Your task to perform on an android device: uninstall "Google Keep" Image 0: 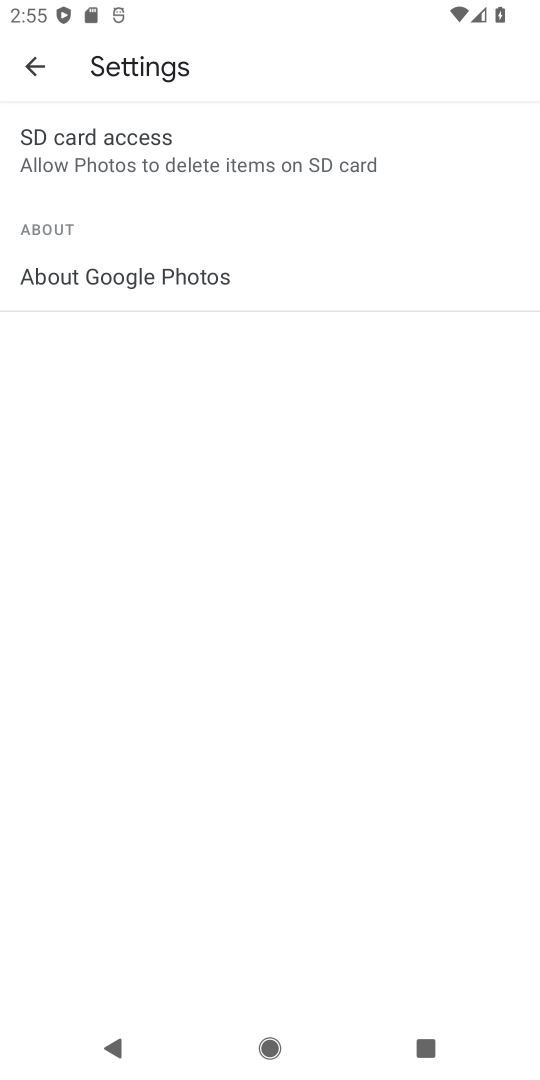
Step 0: press home button
Your task to perform on an android device: uninstall "Google Keep" Image 1: 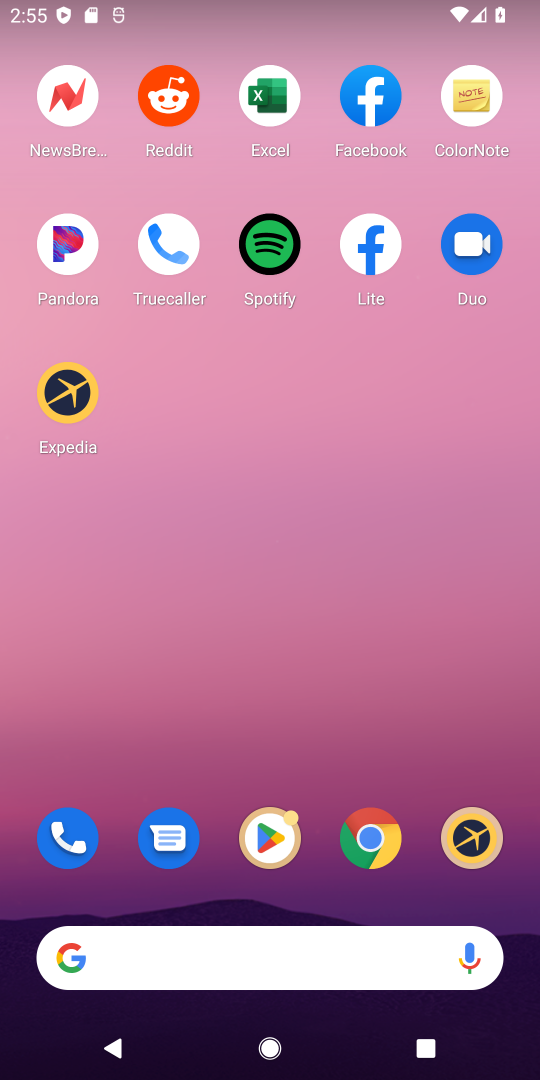
Step 1: drag from (423, 756) to (414, 71)
Your task to perform on an android device: uninstall "Google Keep" Image 2: 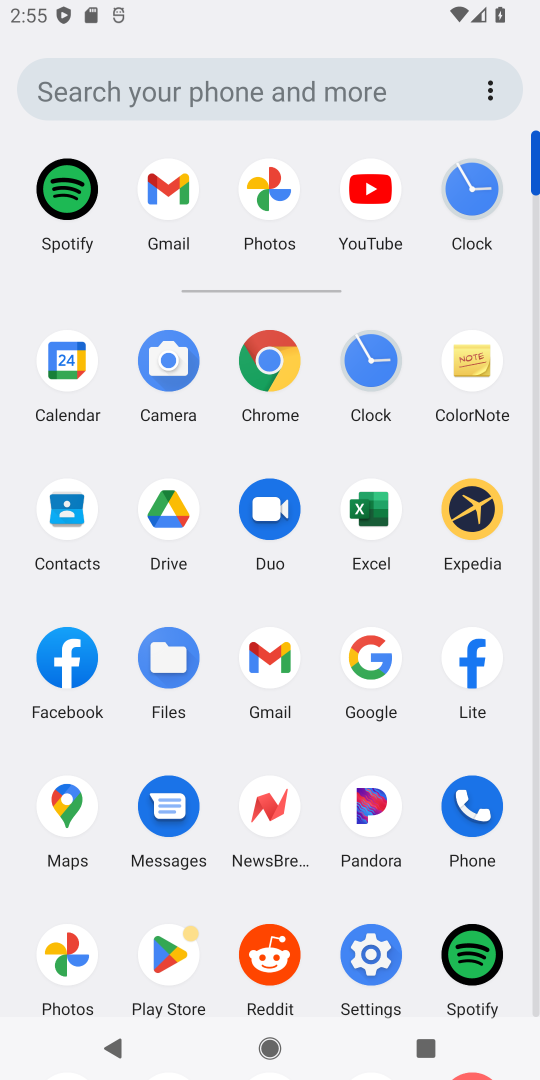
Step 2: click (165, 964)
Your task to perform on an android device: uninstall "Google Keep" Image 3: 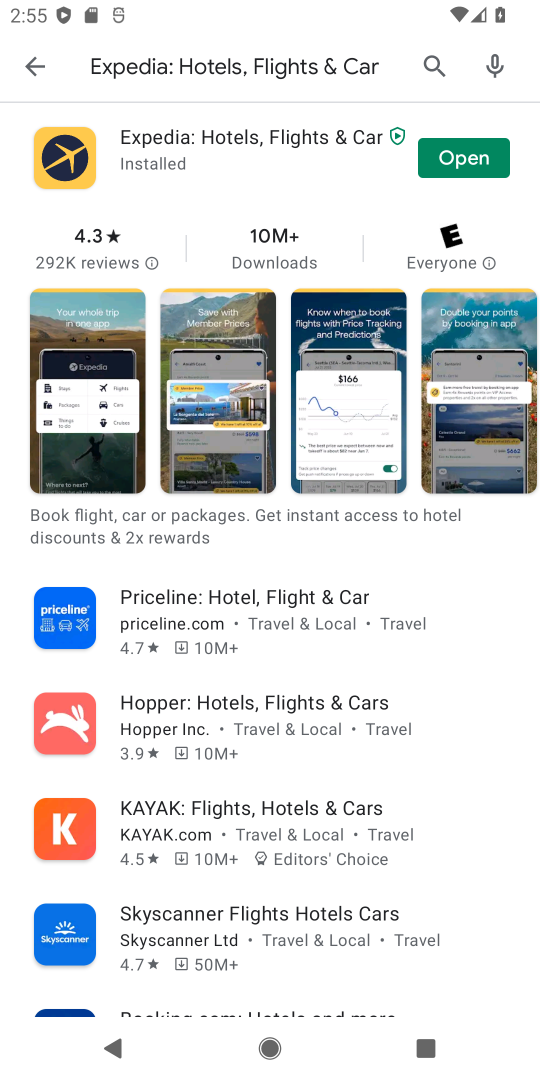
Step 3: press back button
Your task to perform on an android device: uninstall "Google Keep" Image 4: 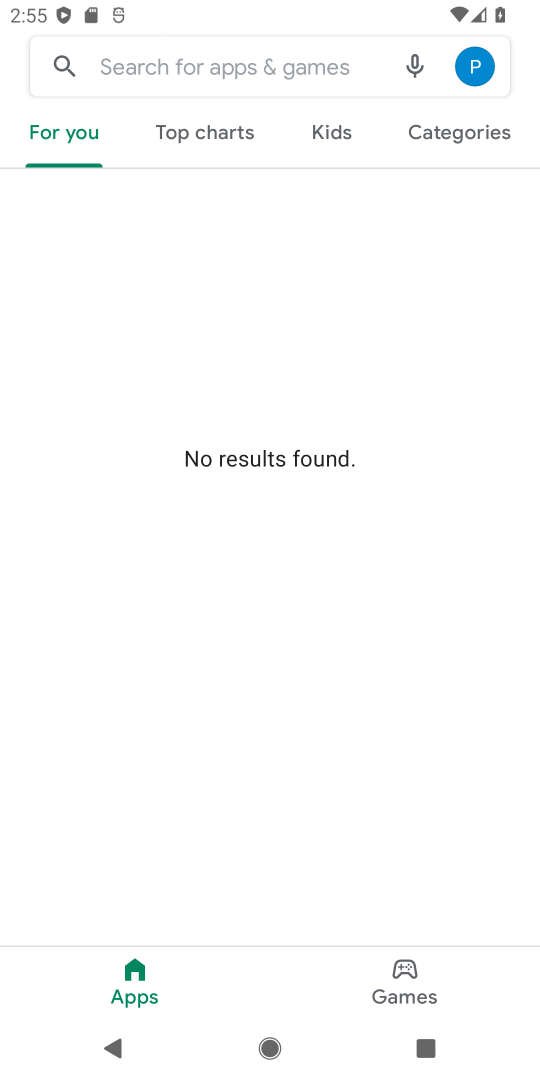
Step 4: click (334, 64)
Your task to perform on an android device: uninstall "Google Keep" Image 5: 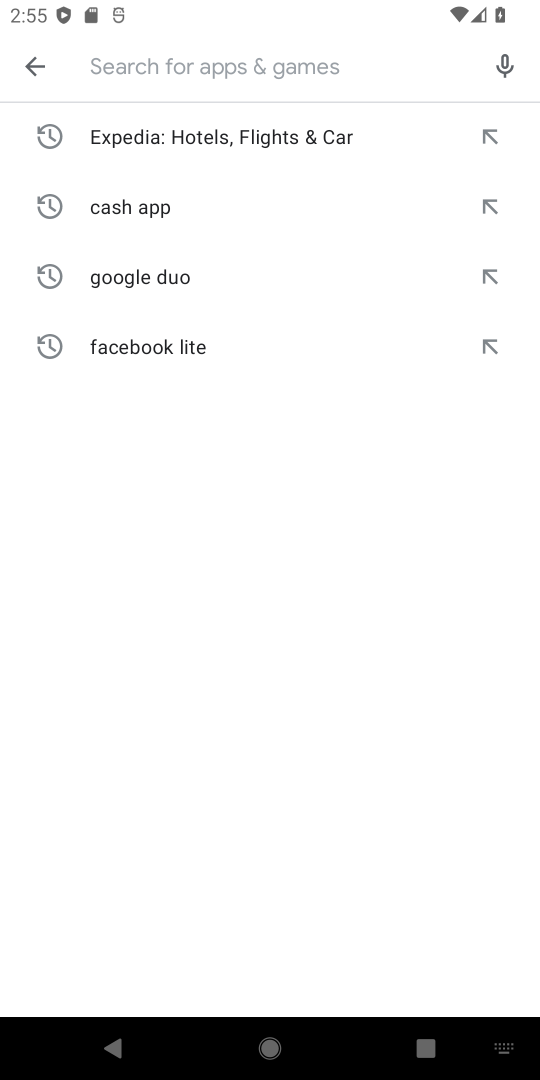
Step 5: press enter
Your task to perform on an android device: uninstall "Google Keep" Image 6: 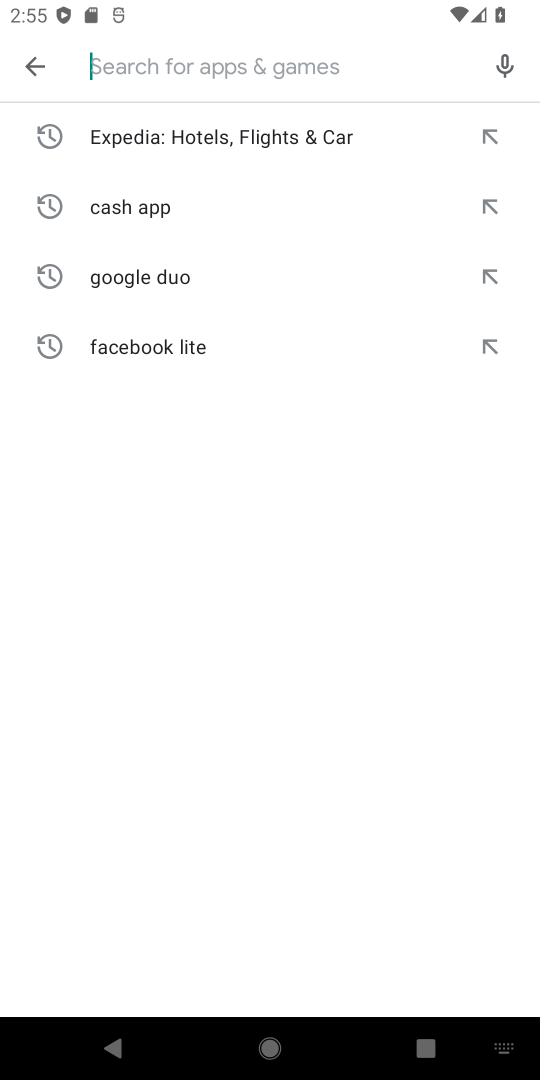
Step 6: type "Google Keep"
Your task to perform on an android device: uninstall "Google Keep" Image 7: 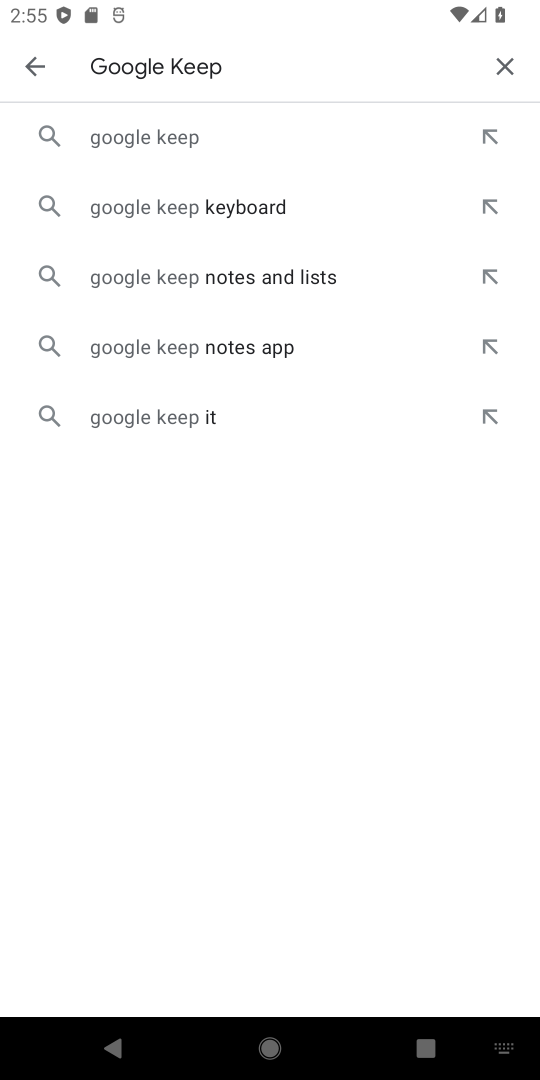
Step 7: click (234, 134)
Your task to perform on an android device: uninstall "Google Keep" Image 8: 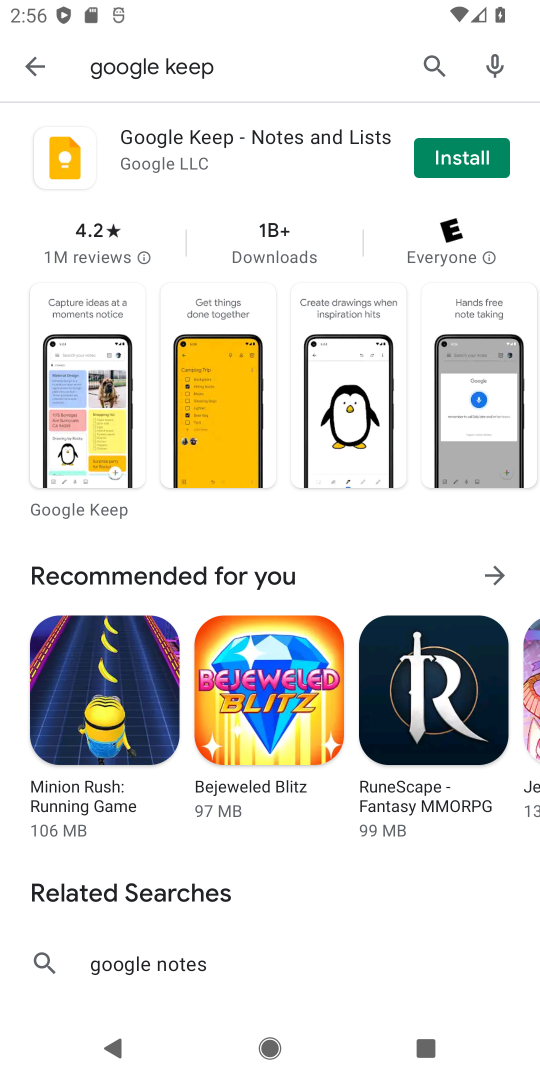
Step 8: task complete